Your task to perform on an android device: Open maps Image 0: 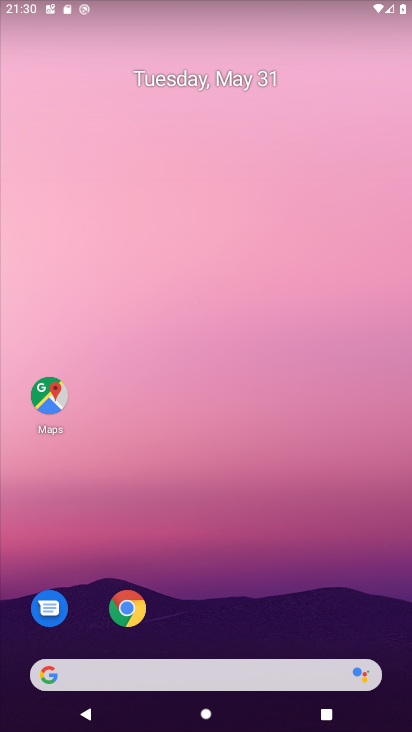
Step 0: click (50, 397)
Your task to perform on an android device: Open maps Image 1: 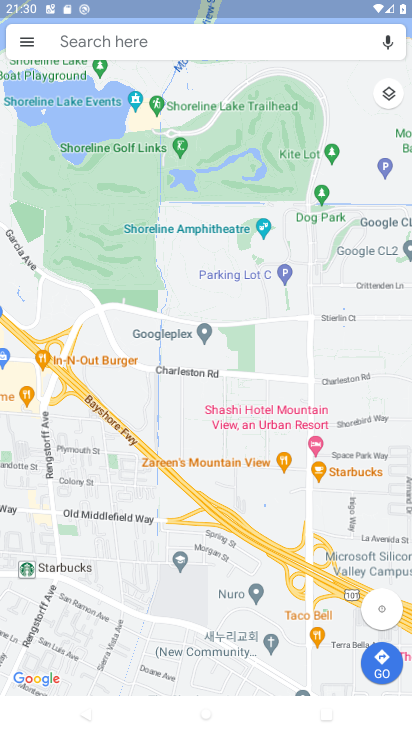
Step 1: task complete